Your task to perform on an android device: View the shopping cart on costco. Add razer blade to the cart on costco, then select checkout. Image 0: 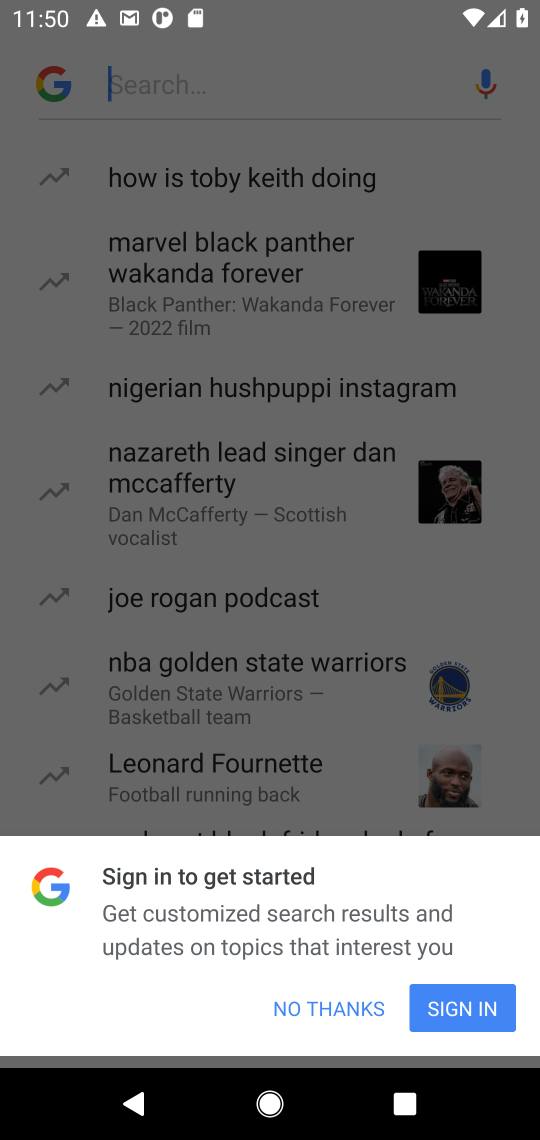
Step 0: press home button
Your task to perform on an android device: View the shopping cart on costco. Add razer blade to the cart on costco, then select checkout. Image 1: 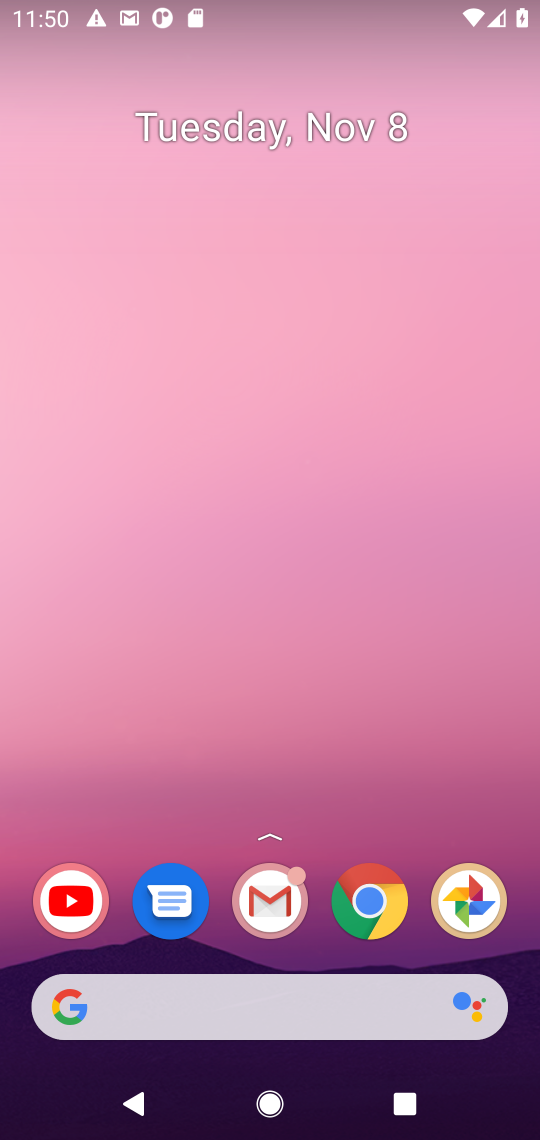
Step 1: click (370, 908)
Your task to perform on an android device: View the shopping cart on costco. Add razer blade to the cart on costco, then select checkout. Image 2: 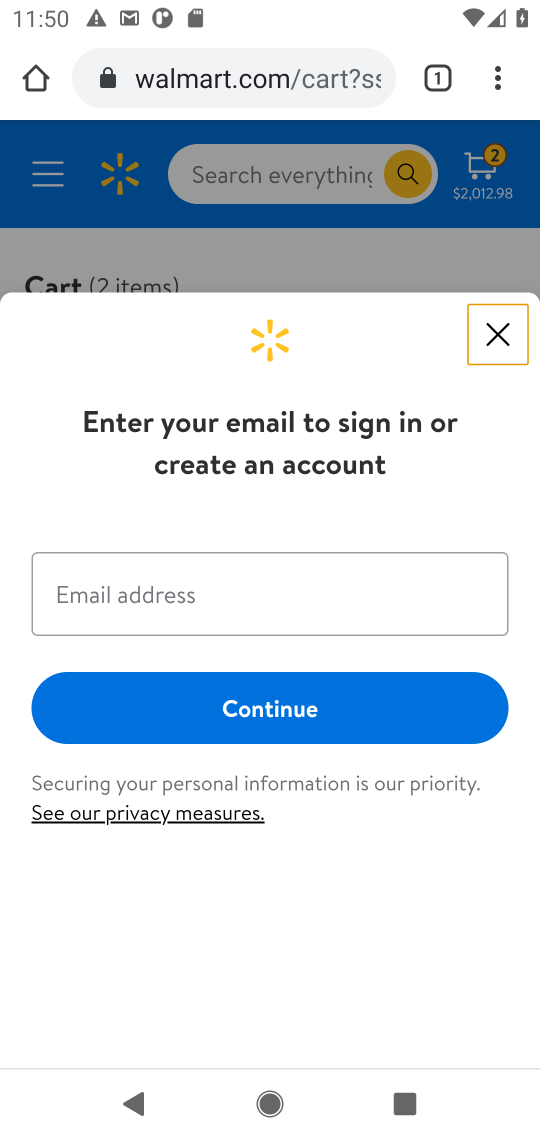
Step 2: click (289, 76)
Your task to perform on an android device: View the shopping cart on costco. Add razer blade to the cart on costco, then select checkout. Image 3: 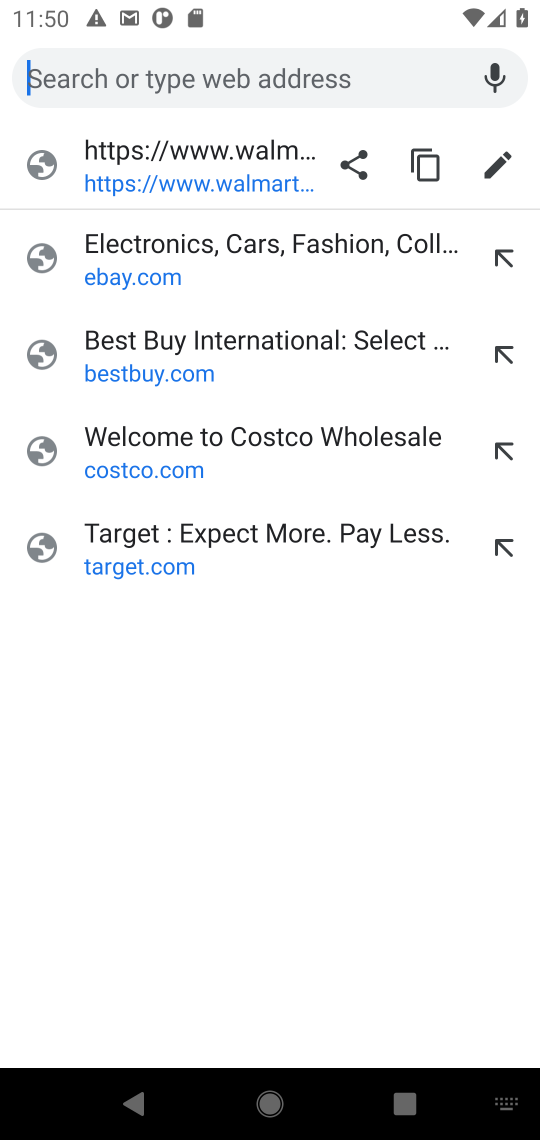
Step 3: press enter
Your task to perform on an android device: View the shopping cart on costco. Add razer blade to the cart on costco, then select checkout. Image 4: 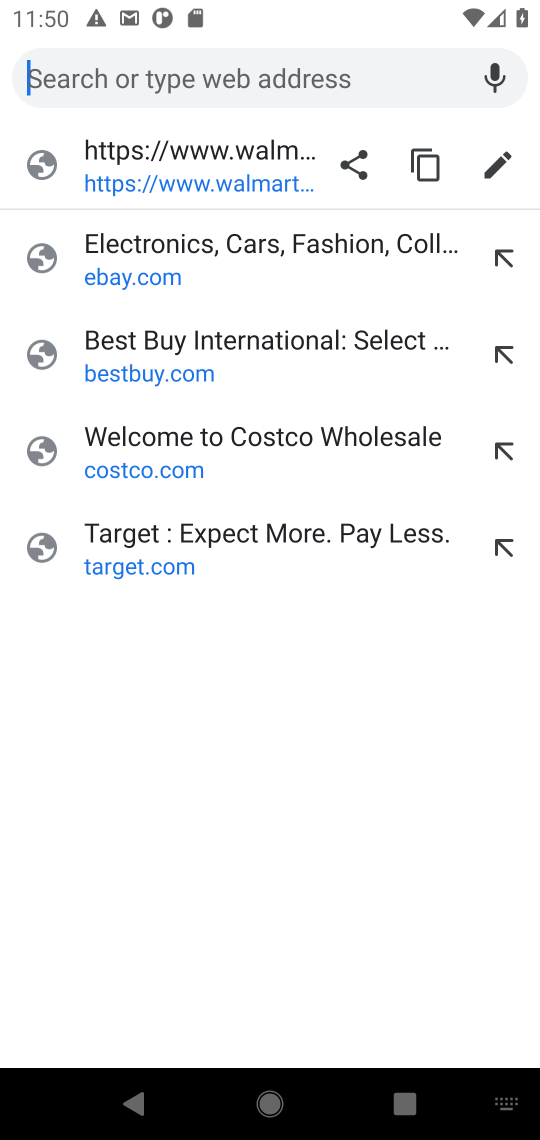
Step 4: type "costco"
Your task to perform on an android device: View the shopping cart on costco. Add razer blade to the cart on costco, then select checkout. Image 5: 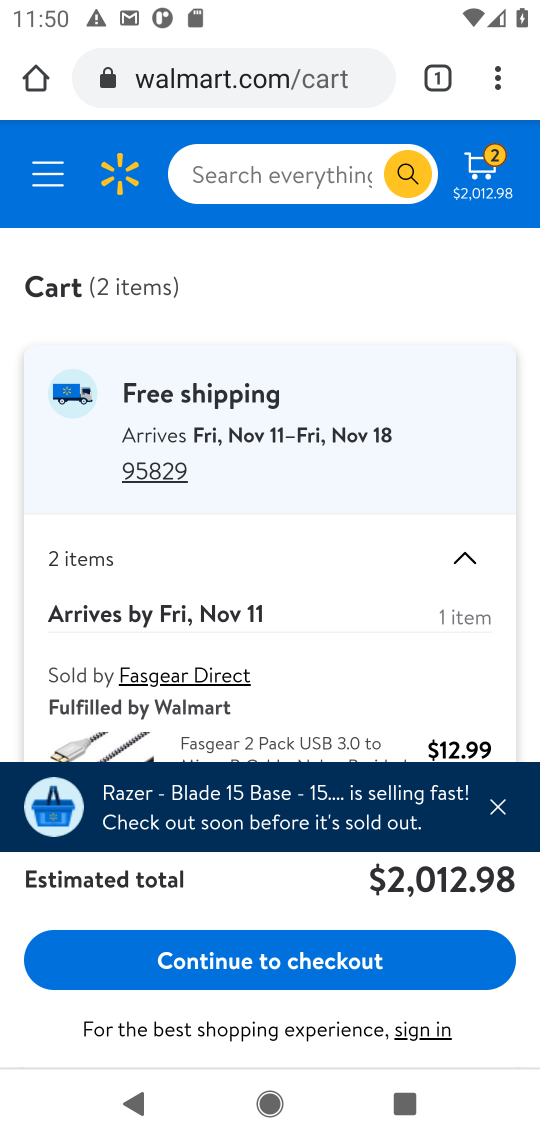
Step 5: click (209, 73)
Your task to perform on an android device: View the shopping cart on costco. Add razer blade to the cart on costco, then select checkout. Image 6: 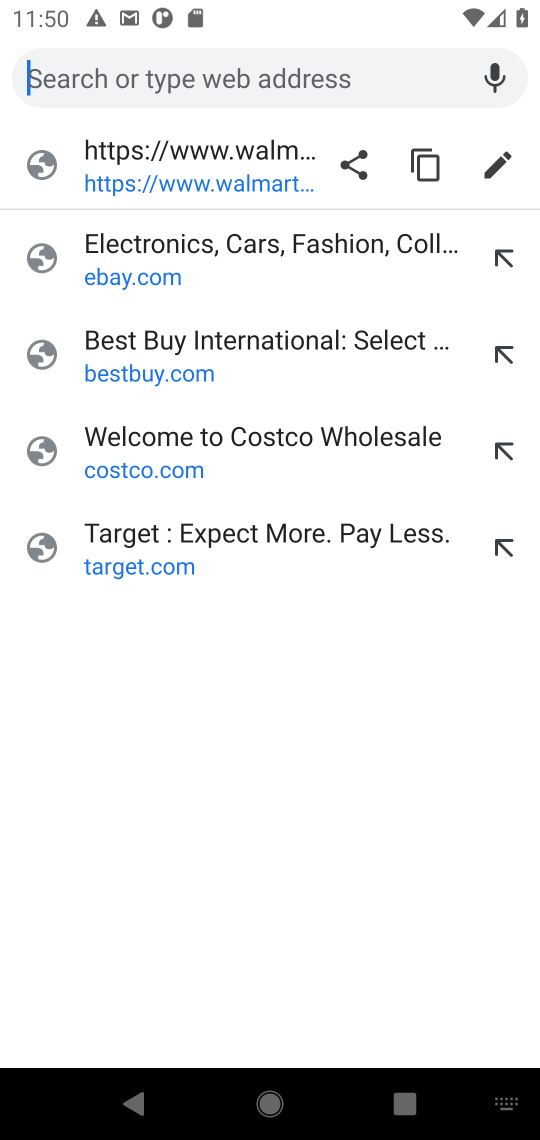
Step 6: click (178, 438)
Your task to perform on an android device: View the shopping cart on costco. Add razer blade to the cart on costco, then select checkout. Image 7: 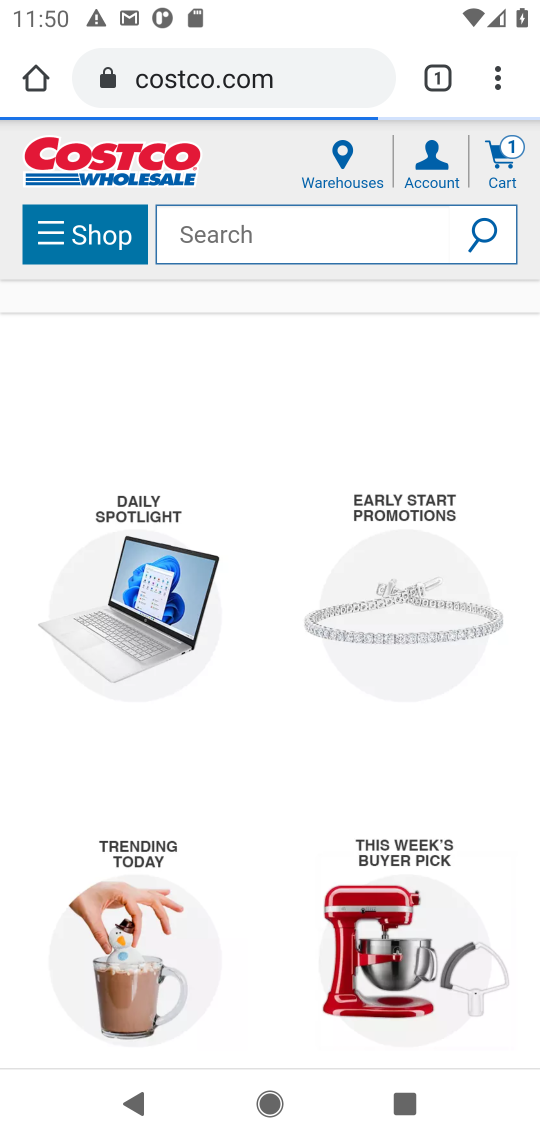
Step 7: click (494, 150)
Your task to perform on an android device: View the shopping cart on costco. Add razer blade to the cart on costco, then select checkout. Image 8: 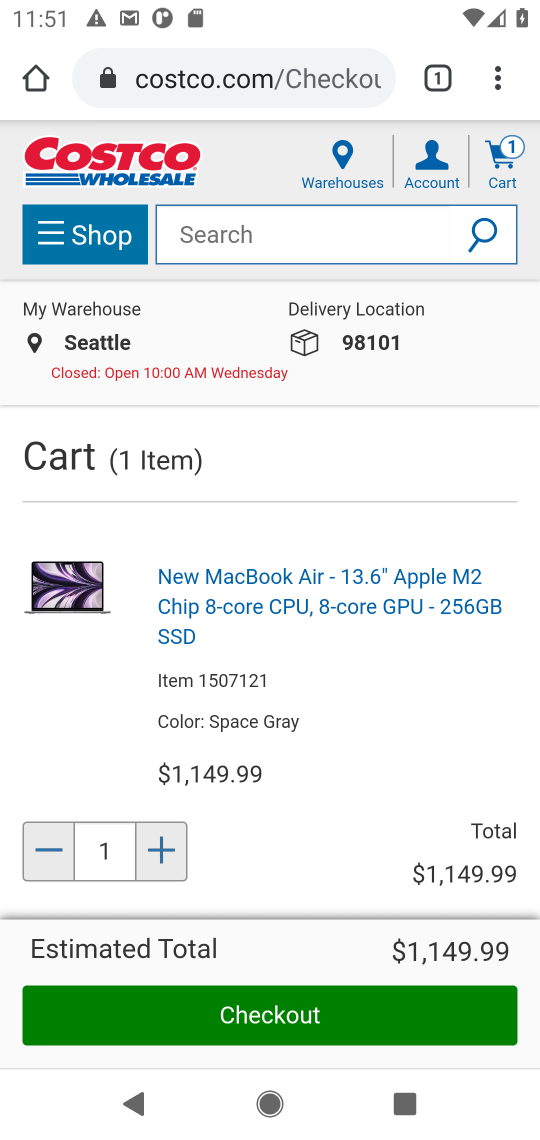
Step 8: click (250, 243)
Your task to perform on an android device: View the shopping cart on costco. Add razer blade to the cart on costco, then select checkout. Image 9: 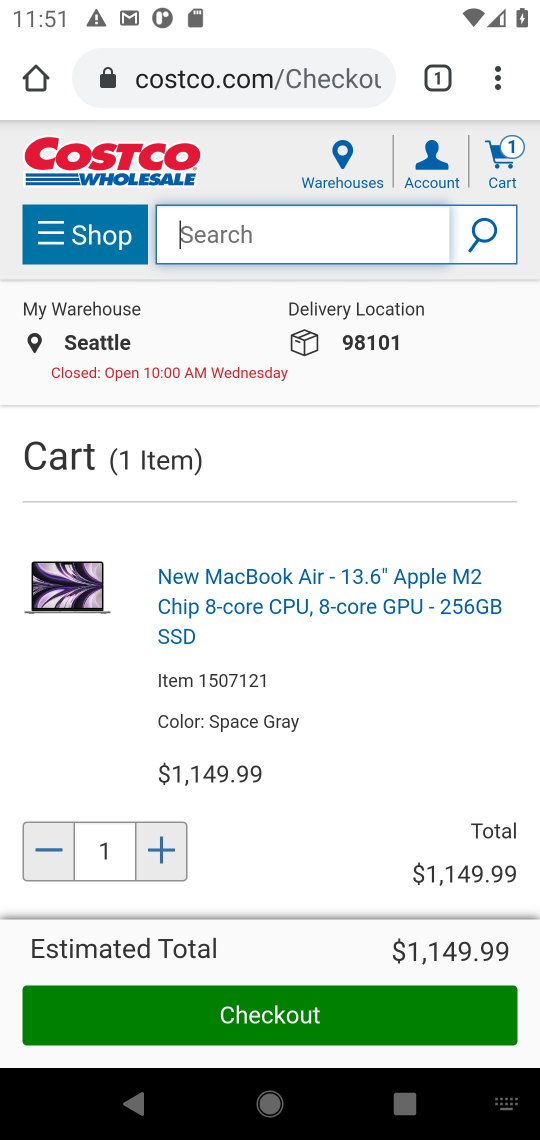
Step 9: type "razer blade "
Your task to perform on an android device: View the shopping cart on costco. Add razer blade to the cart on costco, then select checkout. Image 10: 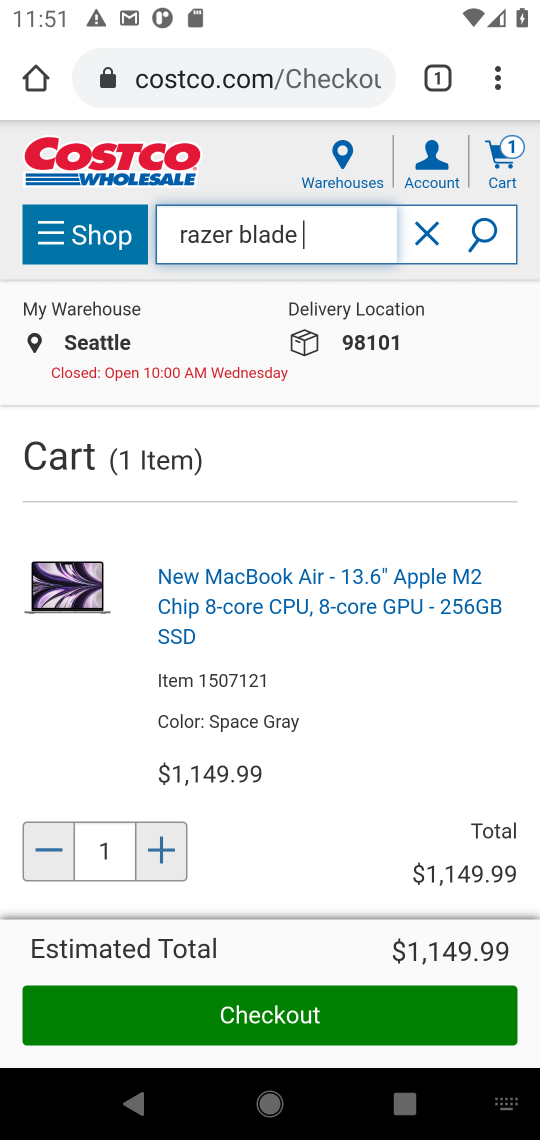
Step 10: press enter
Your task to perform on an android device: View the shopping cart on costco. Add razer blade to the cart on costco, then select checkout. Image 11: 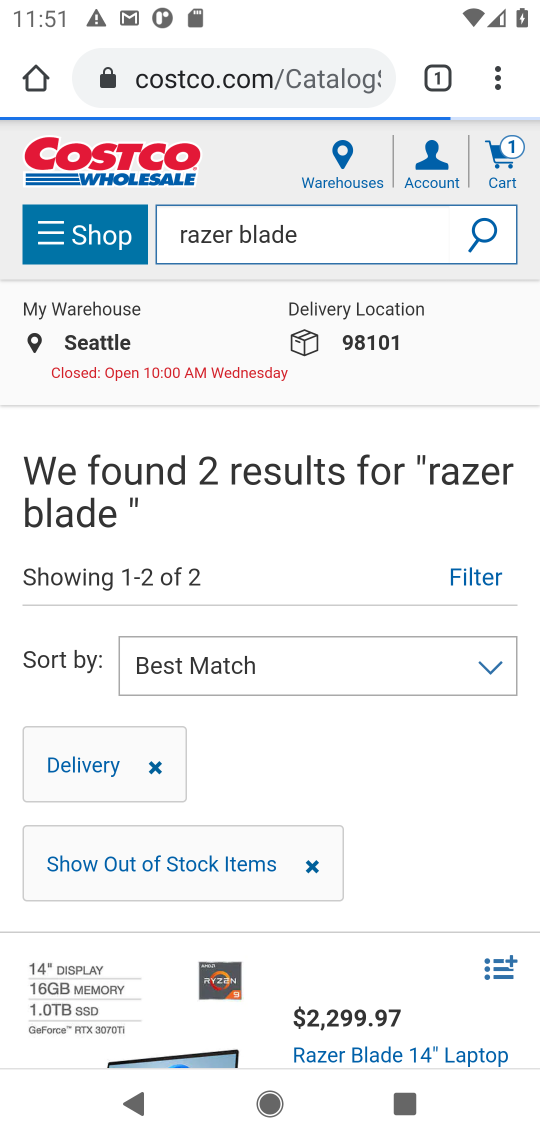
Step 11: drag from (437, 871) to (436, 398)
Your task to perform on an android device: View the shopping cart on costco. Add razer blade to the cart on costco, then select checkout. Image 12: 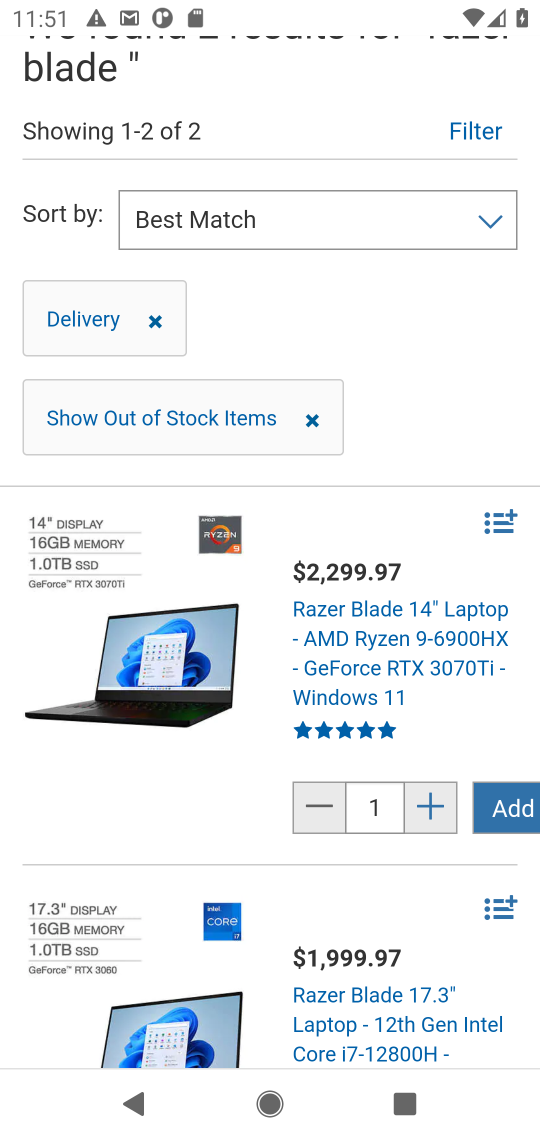
Step 12: click (191, 687)
Your task to perform on an android device: View the shopping cart on costco. Add razer blade to the cart on costco, then select checkout. Image 13: 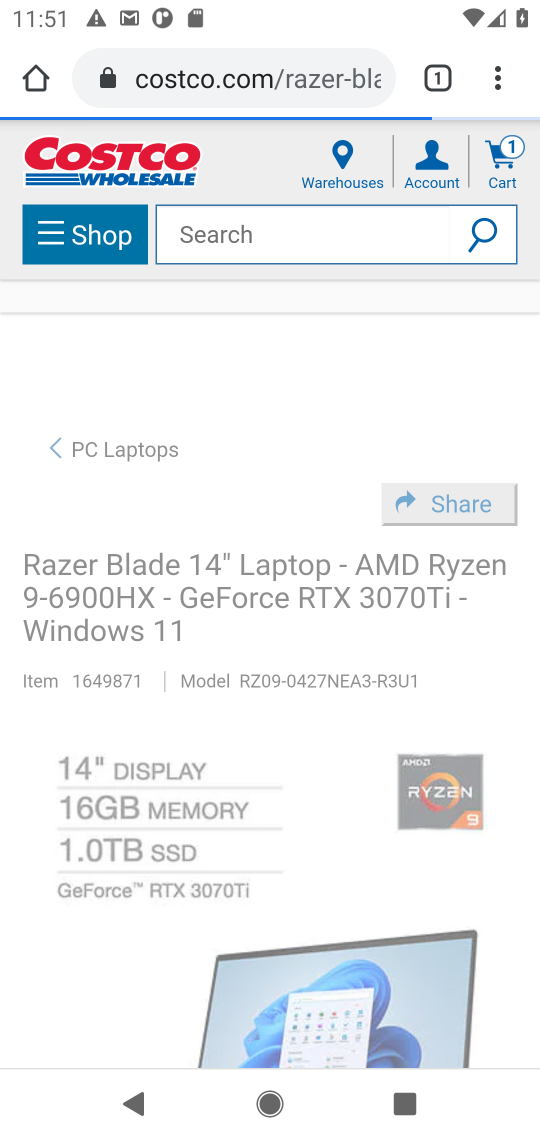
Step 13: drag from (527, 864) to (537, 308)
Your task to perform on an android device: View the shopping cart on costco. Add razer blade to the cart on costco, then select checkout. Image 14: 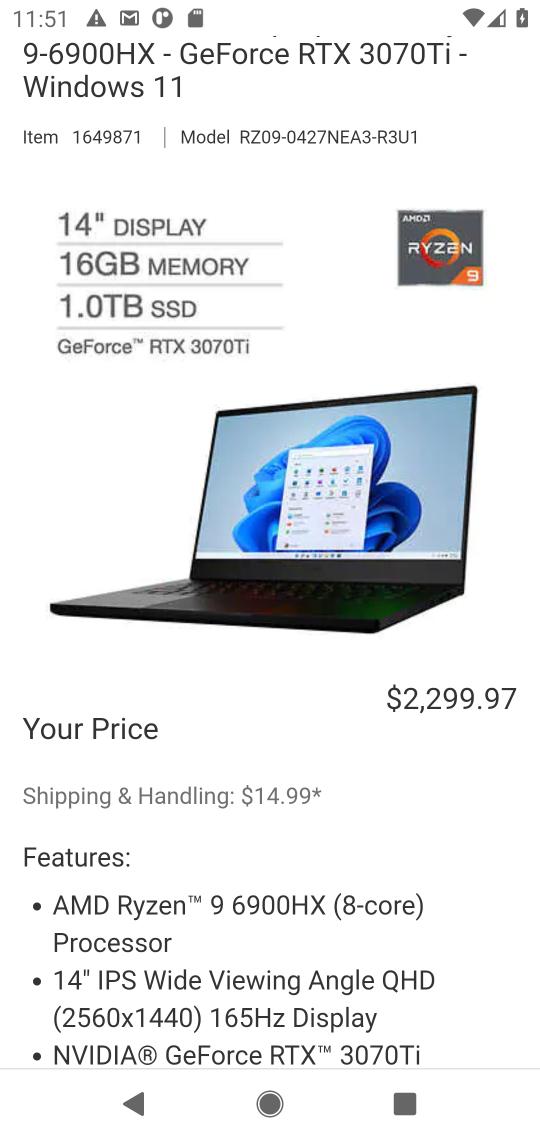
Step 14: drag from (503, 890) to (533, 521)
Your task to perform on an android device: View the shopping cart on costco. Add razer blade to the cart on costco, then select checkout. Image 15: 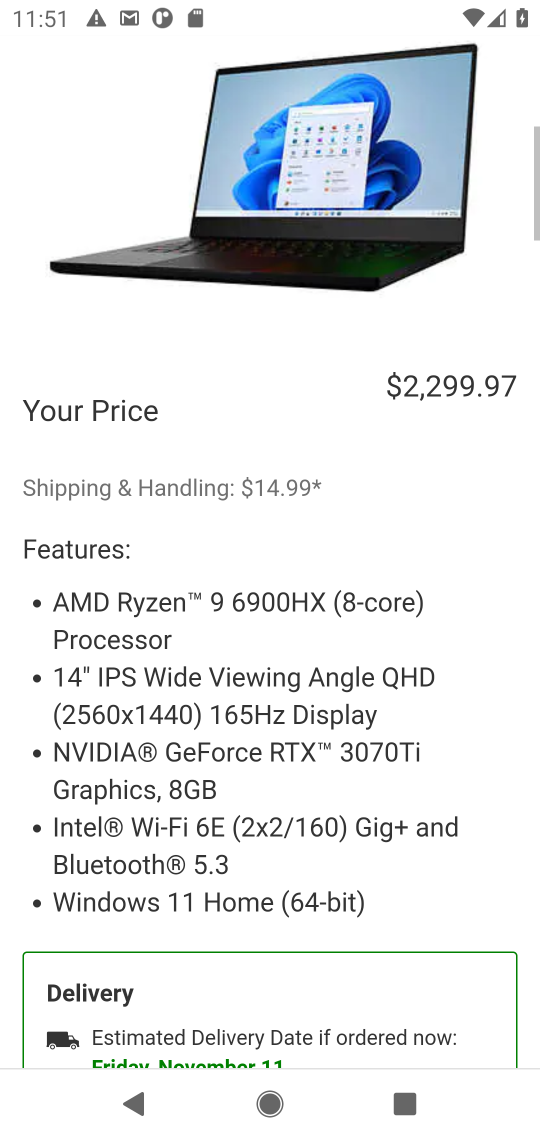
Step 15: drag from (525, 539) to (530, 688)
Your task to perform on an android device: View the shopping cart on costco. Add razer blade to the cart on costco, then select checkout. Image 16: 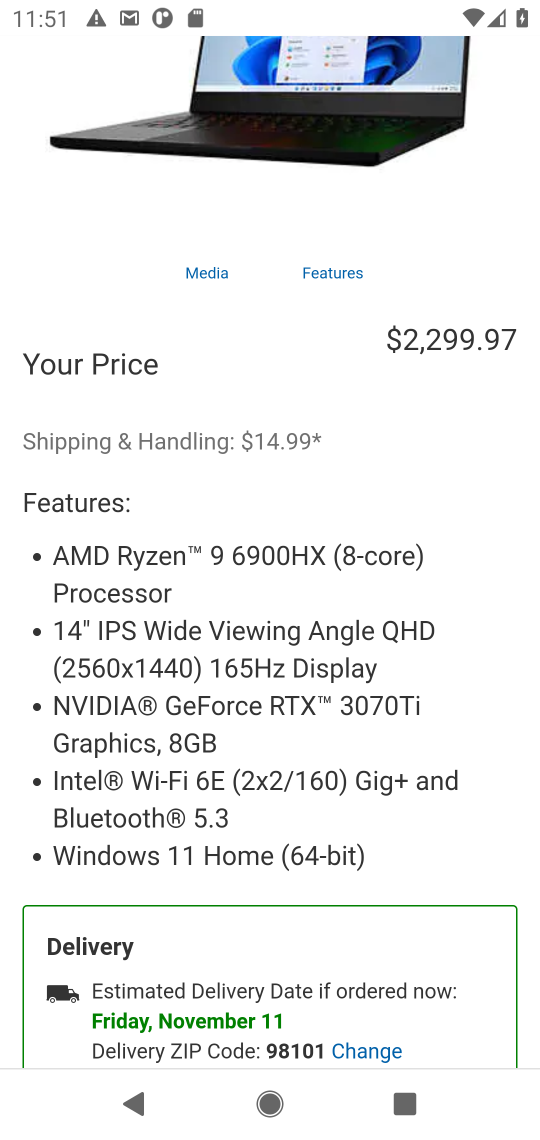
Step 16: drag from (464, 864) to (463, 335)
Your task to perform on an android device: View the shopping cart on costco. Add razer blade to the cart on costco, then select checkout. Image 17: 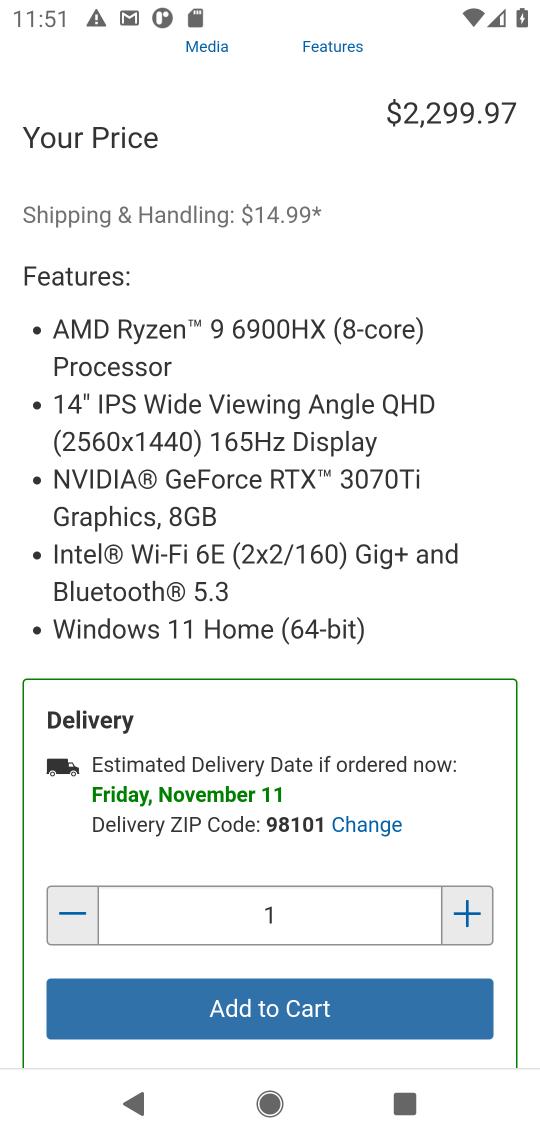
Step 17: click (285, 1001)
Your task to perform on an android device: View the shopping cart on costco. Add razer blade to the cart on costco, then select checkout. Image 18: 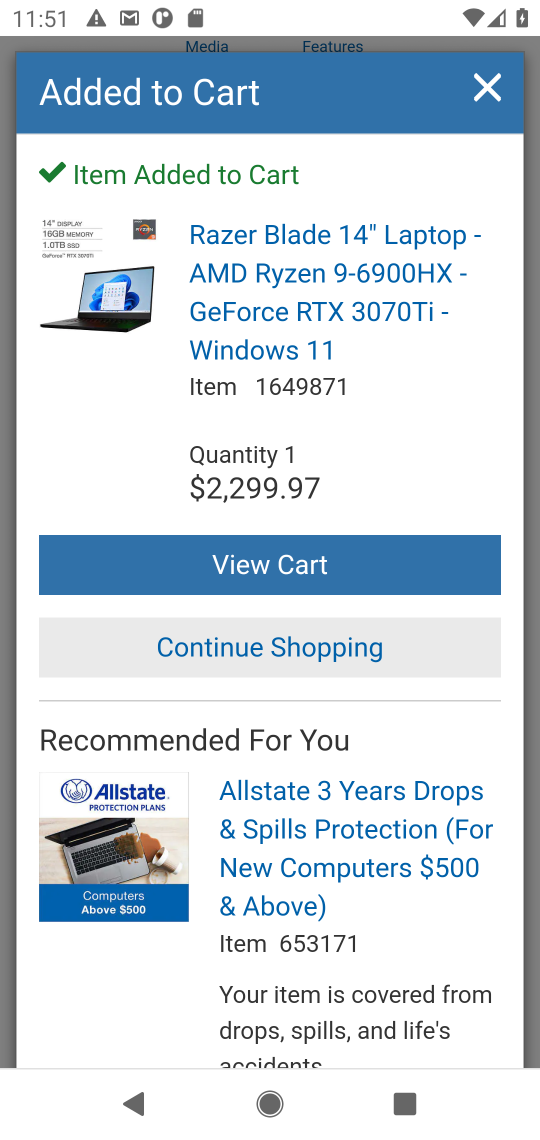
Step 18: click (276, 569)
Your task to perform on an android device: View the shopping cart on costco. Add razer blade to the cart on costco, then select checkout. Image 19: 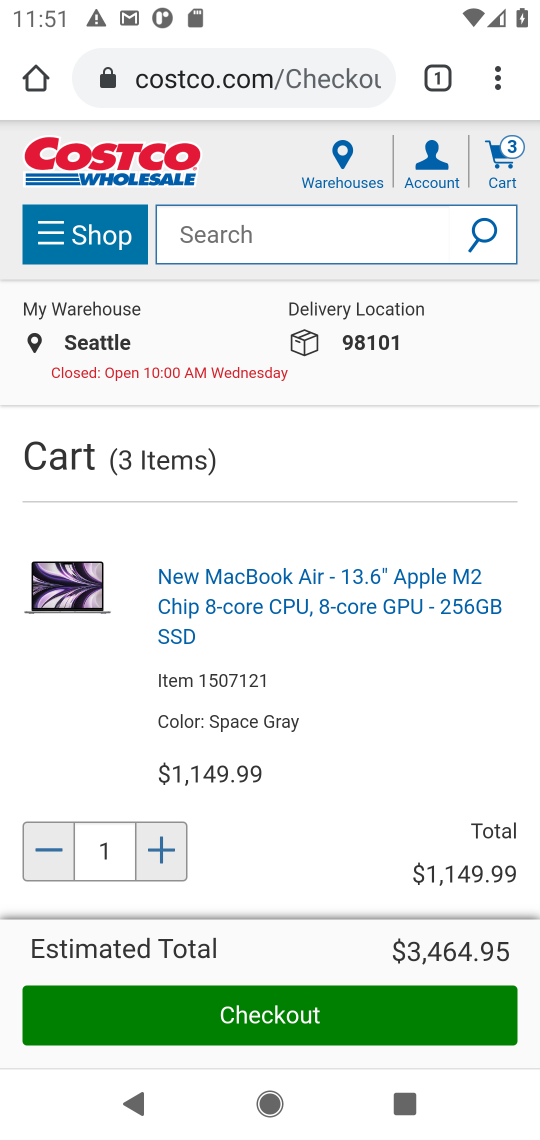
Step 19: click (277, 1013)
Your task to perform on an android device: View the shopping cart on costco. Add razer blade to the cart on costco, then select checkout. Image 20: 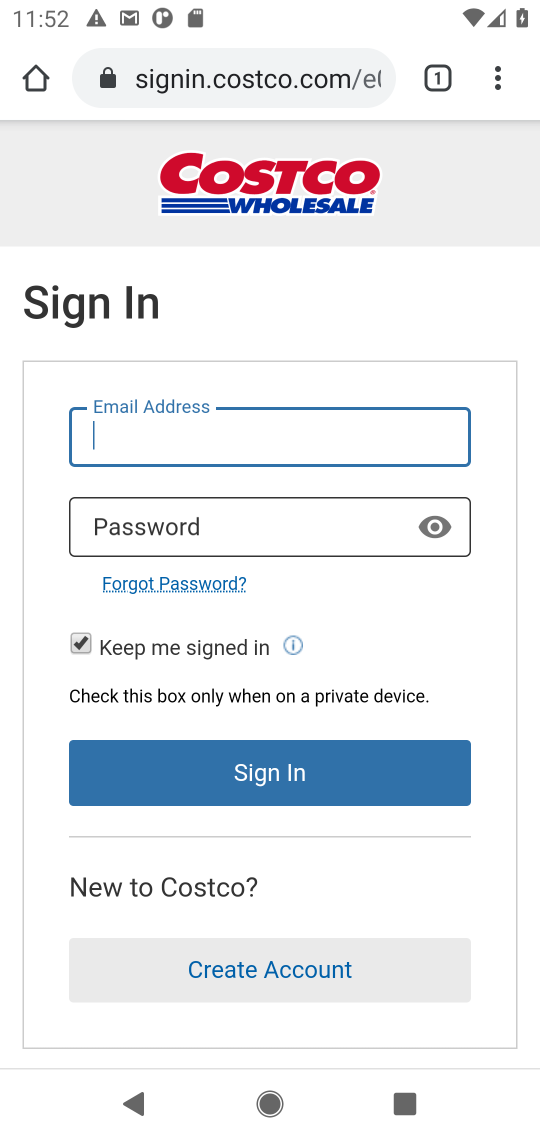
Step 20: task complete